Your task to perform on an android device: What's the weather today? Image 0: 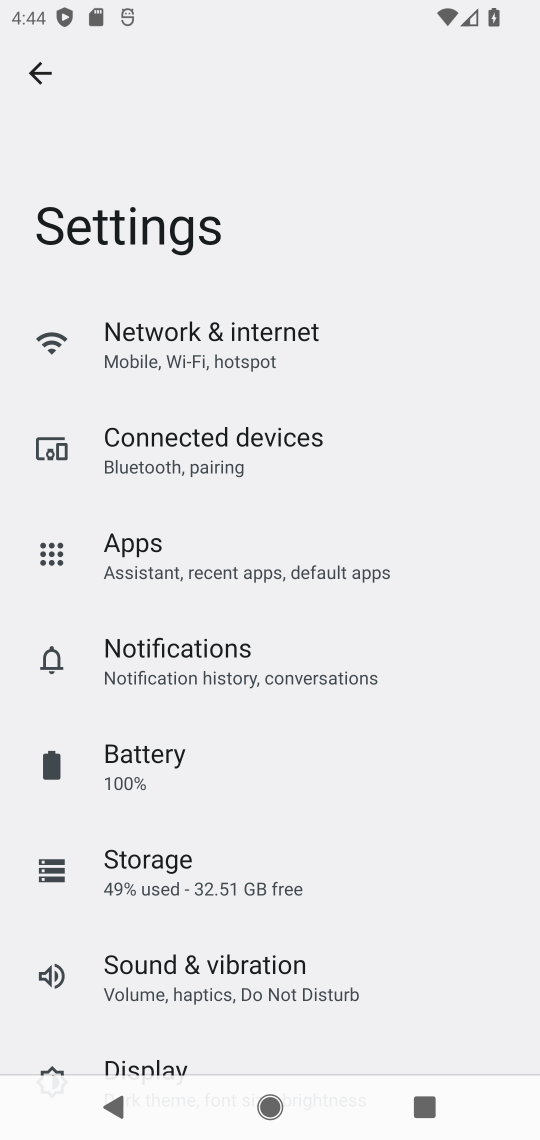
Step 0: press home button
Your task to perform on an android device: What's the weather today? Image 1: 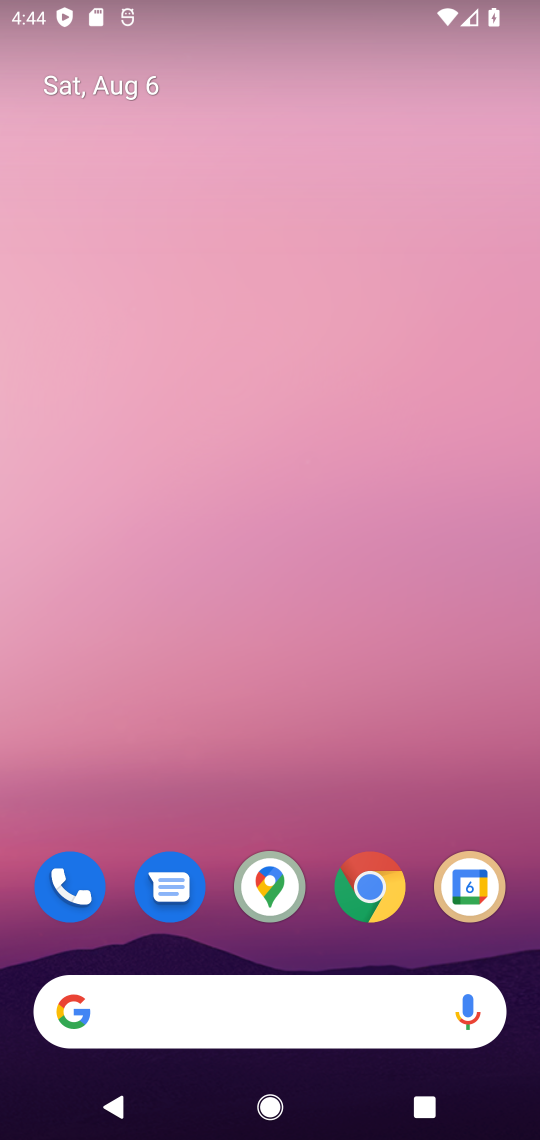
Step 1: drag from (301, 1016) to (251, 117)
Your task to perform on an android device: What's the weather today? Image 2: 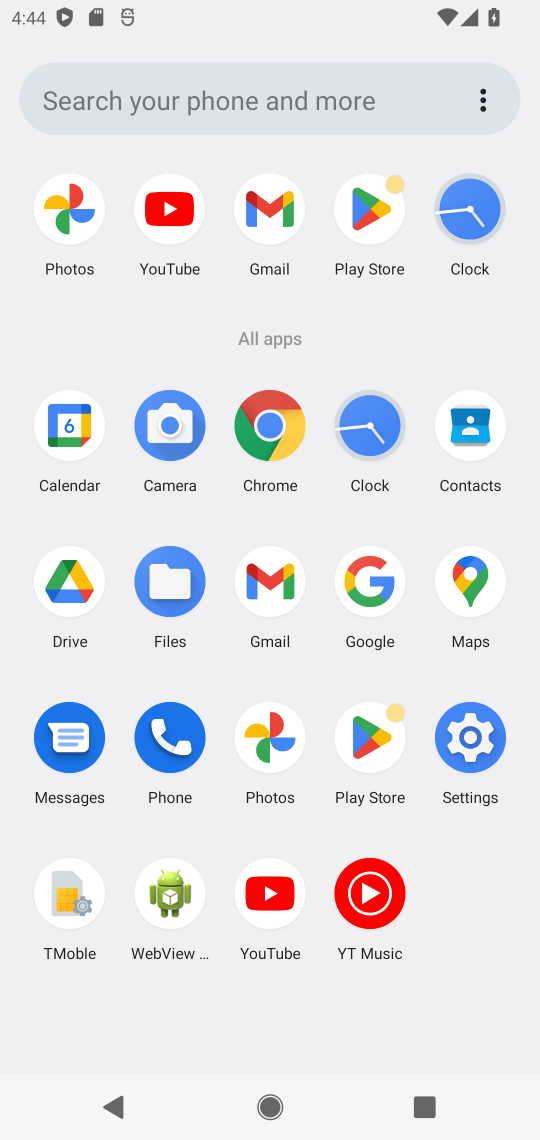
Step 2: click (263, 450)
Your task to perform on an android device: What's the weather today? Image 3: 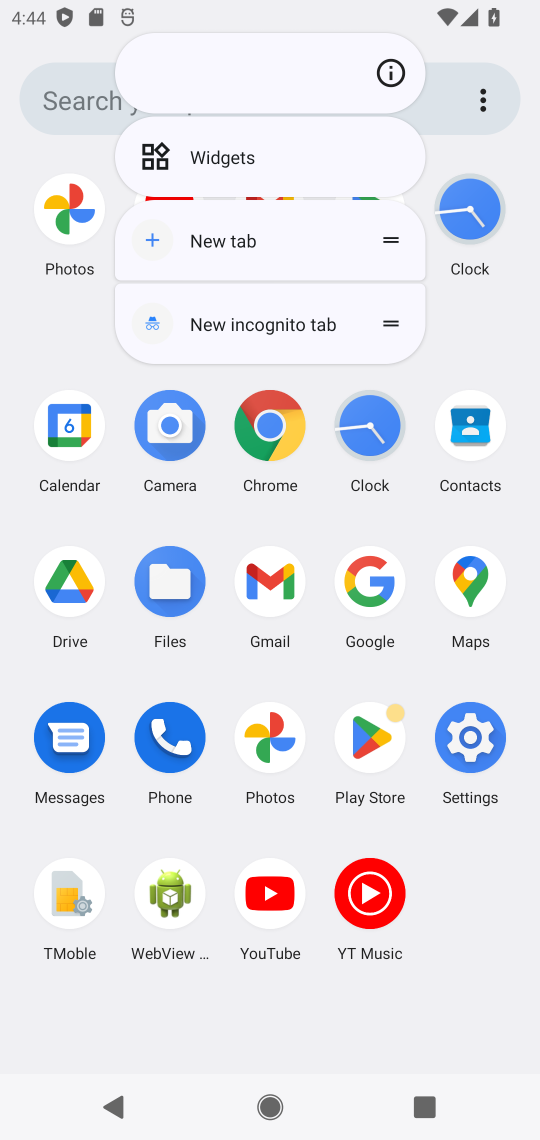
Step 3: click (263, 450)
Your task to perform on an android device: What's the weather today? Image 4: 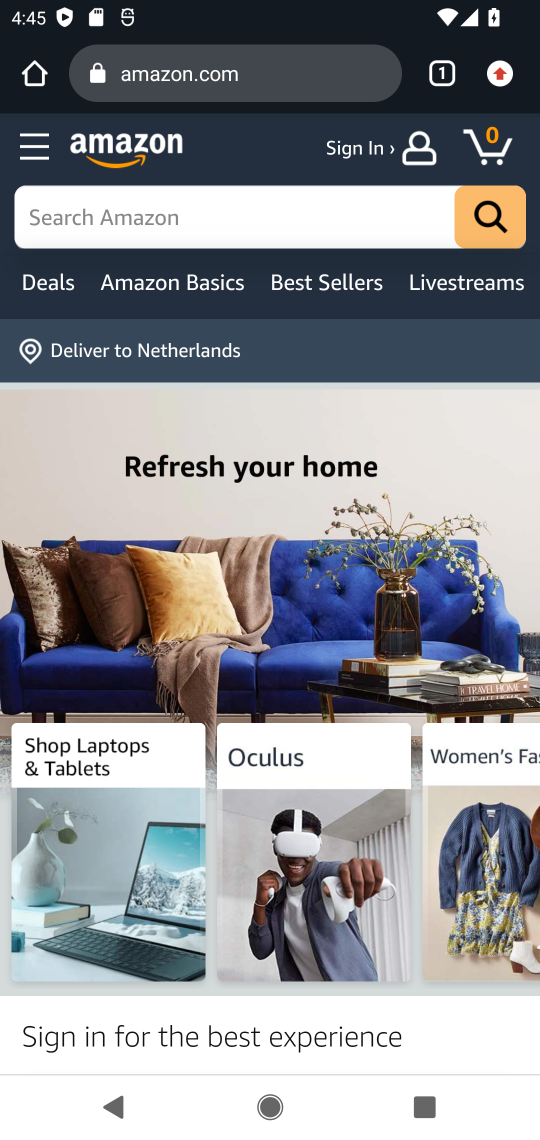
Step 4: click (218, 85)
Your task to perform on an android device: What's the weather today? Image 5: 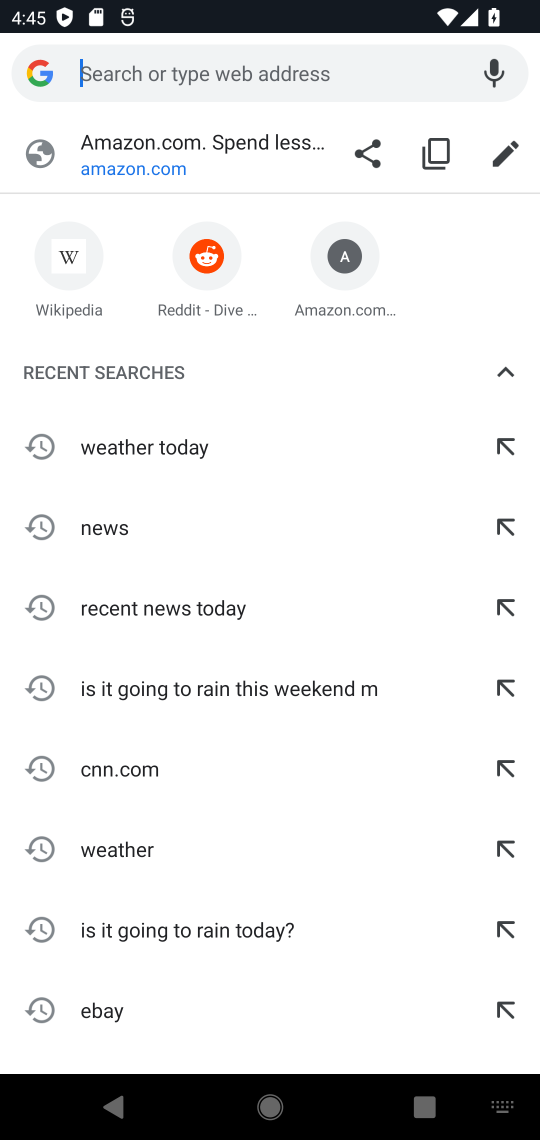
Step 5: type "weather today"
Your task to perform on an android device: What's the weather today? Image 6: 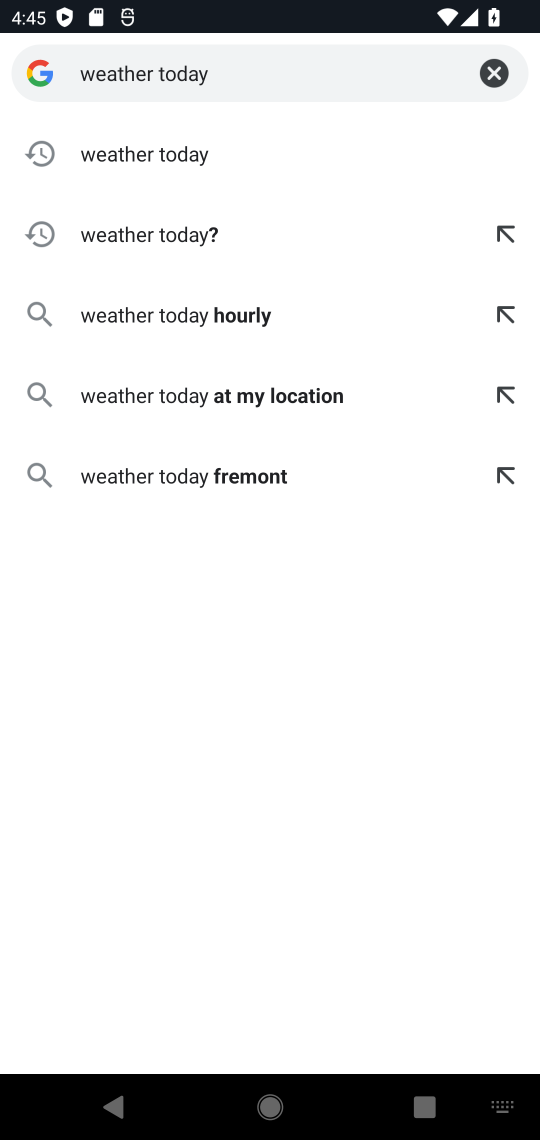
Step 6: click (179, 157)
Your task to perform on an android device: What's the weather today? Image 7: 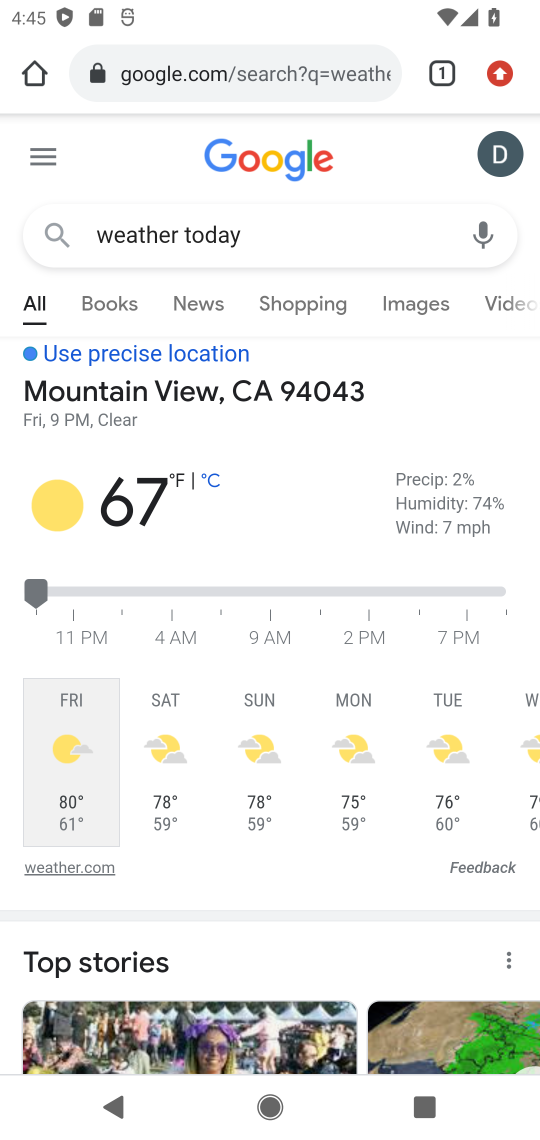
Step 7: task complete